Your task to perform on an android device: change notifications settings Image 0: 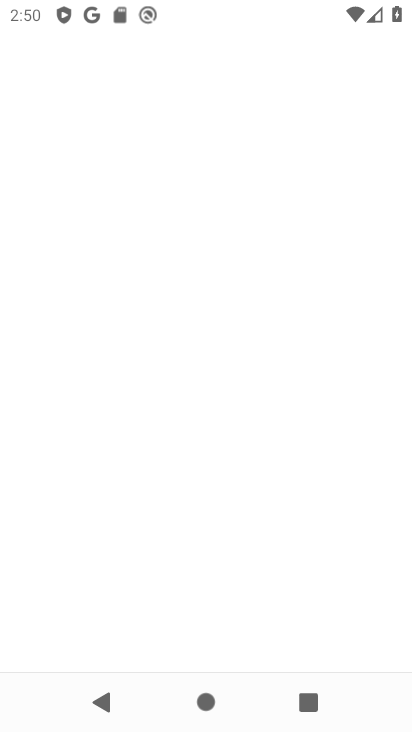
Step 0: drag from (293, 99) to (411, 173)
Your task to perform on an android device: change notifications settings Image 1: 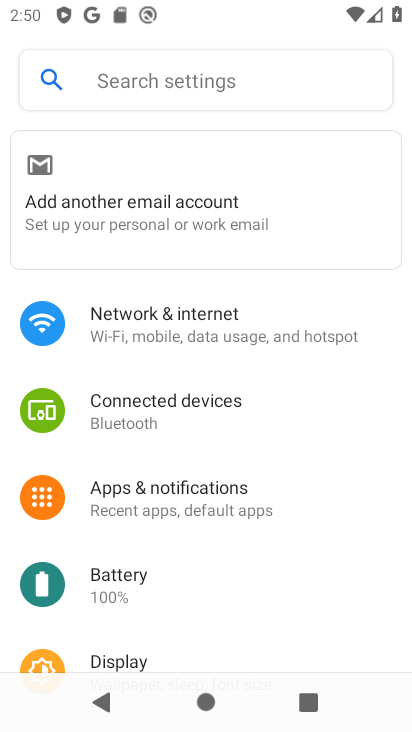
Step 1: press home button
Your task to perform on an android device: change notifications settings Image 2: 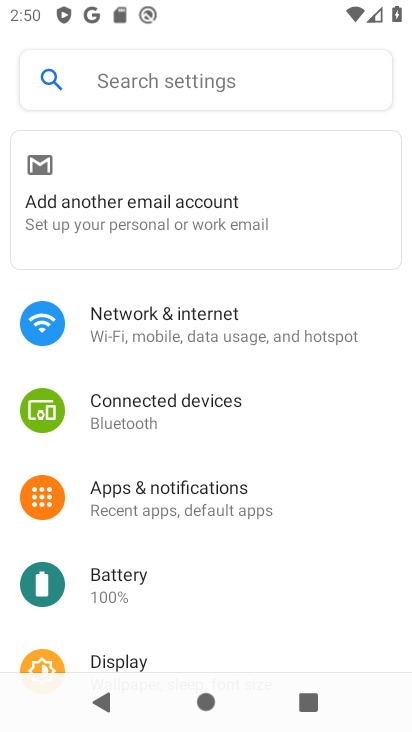
Step 2: drag from (411, 173) to (339, 452)
Your task to perform on an android device: change notifications settings Image 3: 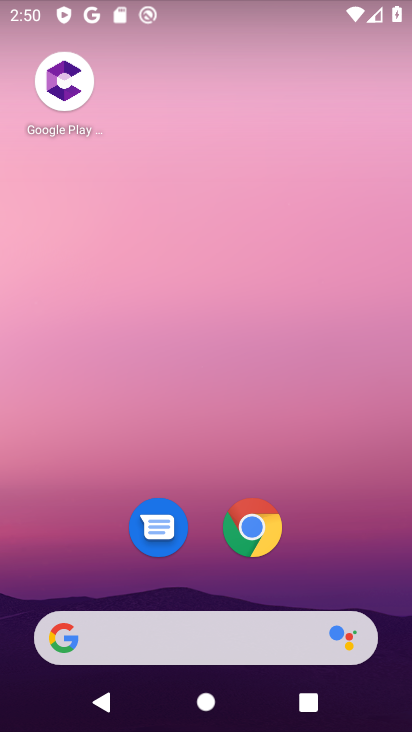
Step 3: drag from (73, 622) to (213, 109)
Your task to perform on an android device: change notifications settings Image 4: 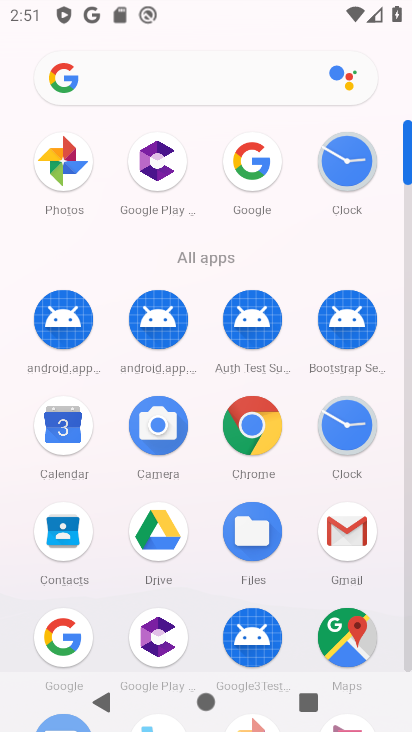
Step 4: drag from (243, 598) to (289, 294)
Your task to perform on an android device: change notifications settings Image 5: 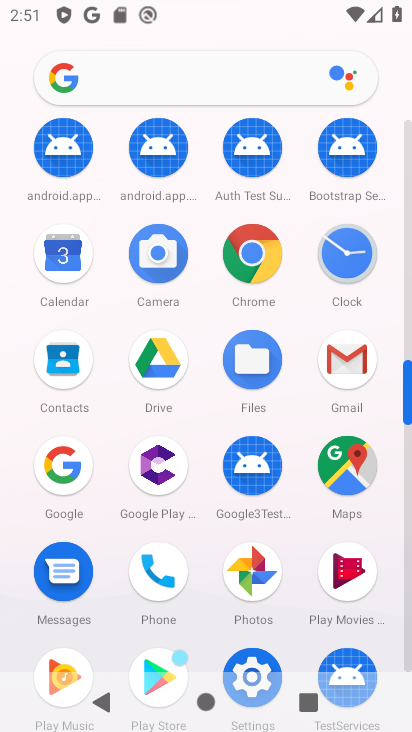
Step 5: click (247, 664)
Your task to perform on an android device: change notifications settings Image 6: 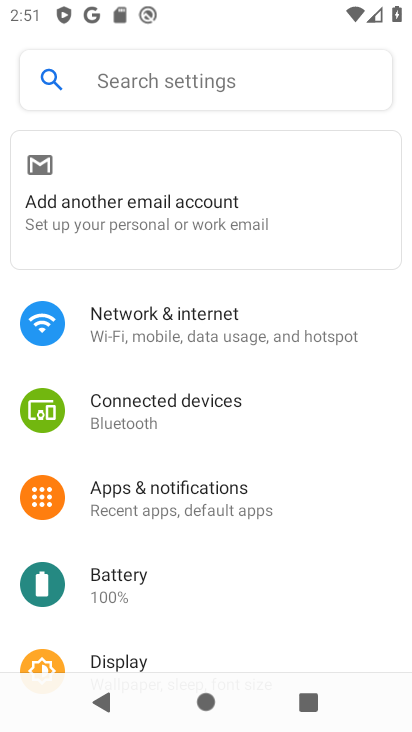
Step 6: click (282, 514)
Your task to perform on an android device: change notifications settings Image 7: 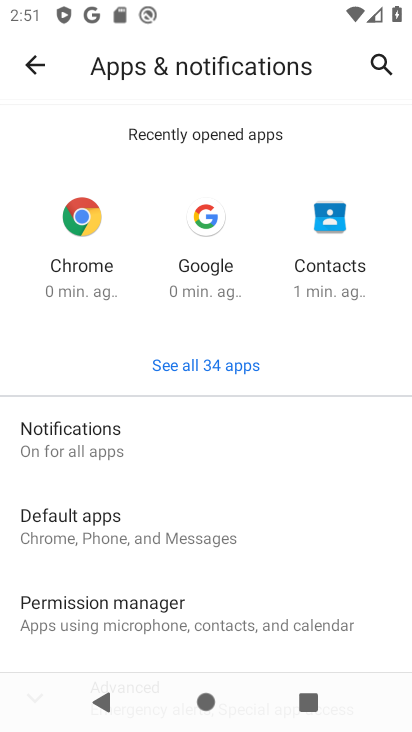
Step 7: click (202, 460)
Your task to perform on an android device: change notifications settings Image 8: 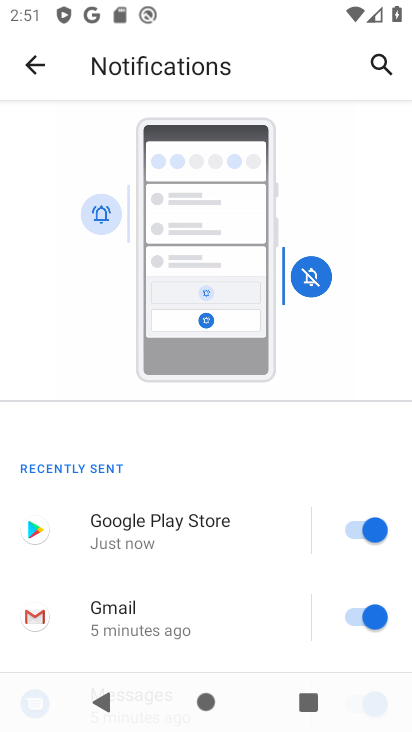
Step 8: drag from (202, 579) to (254, 236)
Your task to perform on an android device: change notifications settings Image 9: 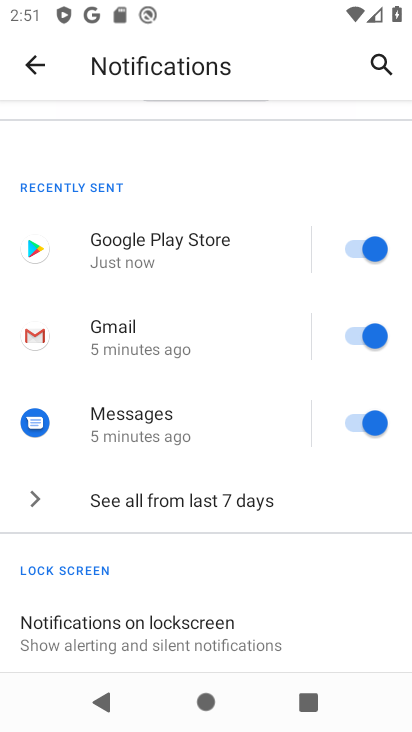
Step 9: click (359, 497)
Your task to perform on an android device: change notifications settings Image 10: 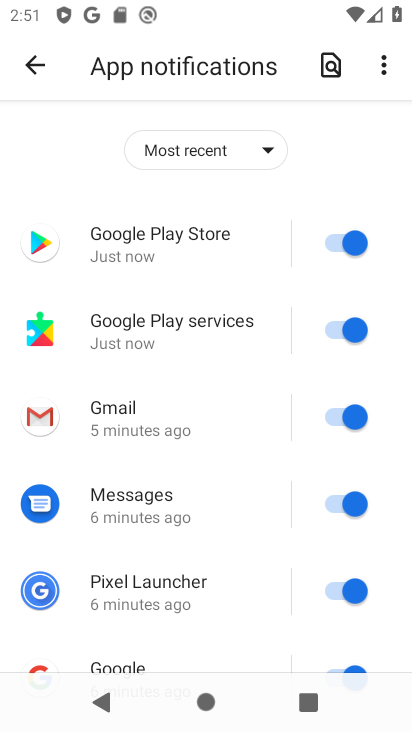
Step 10: click (352, 246)
Your task to perform on an android device: change notifications settings Image 11: 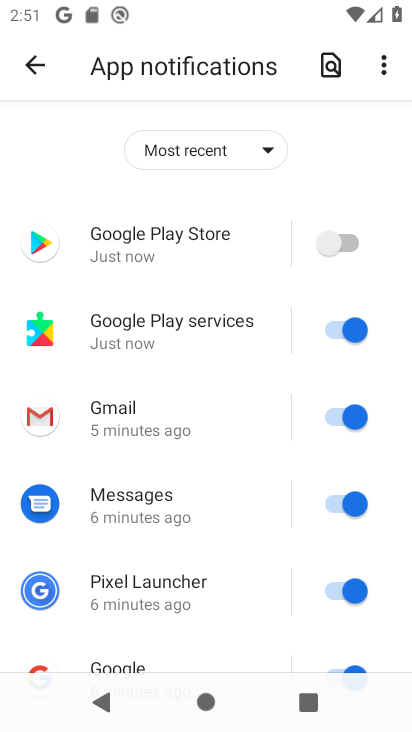
Step 11: click (342, 516)
Your task to perform on an android device: change notifications settings Image 12: 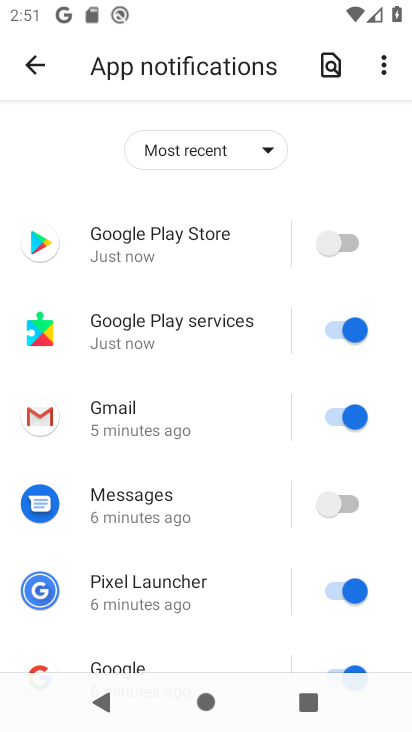
Step 12: click (344, 591)
Your task to perform on an android device: change notifications settings Image 13: 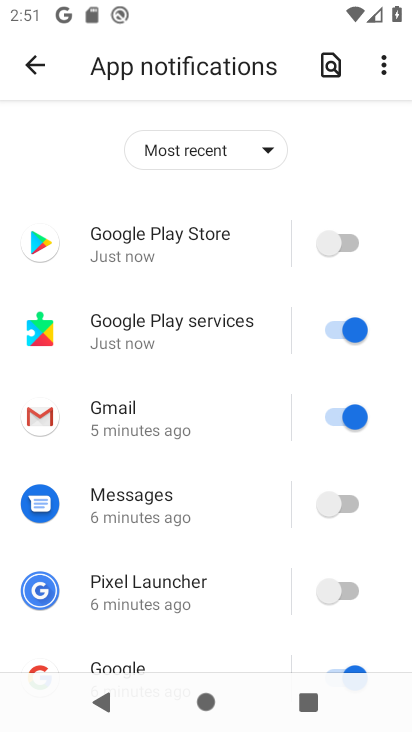
Step 13: click (333, 406)
Your task to perform on an android device: change notifications settings Image 14: 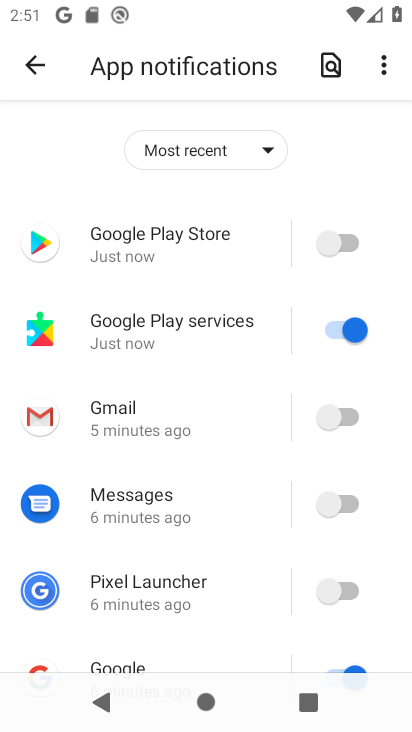
Step 14: click (352, 331)
Your task to perform on an android device: change notifications settings Image 15: 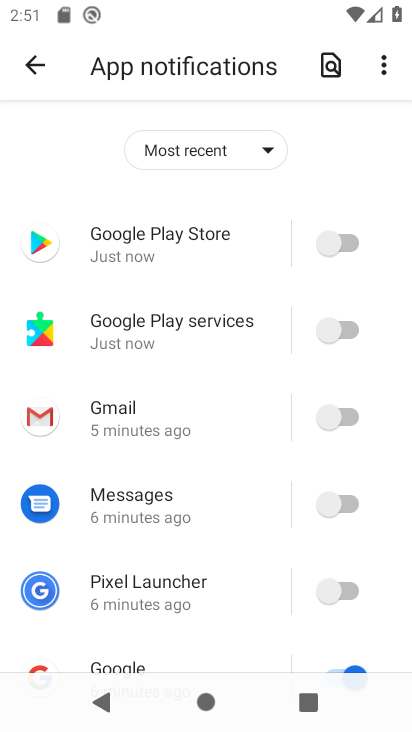
Step 15: drag from (247, 614) to (274, 386)
Your task to perform on an android device: change notifications settings Image 16: 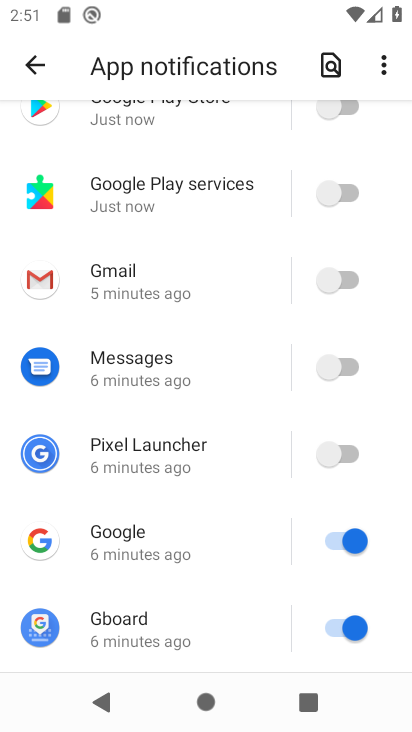
Step 16: click (34, 62)
Your task to perform on an android device: change notifications settings Image 17: 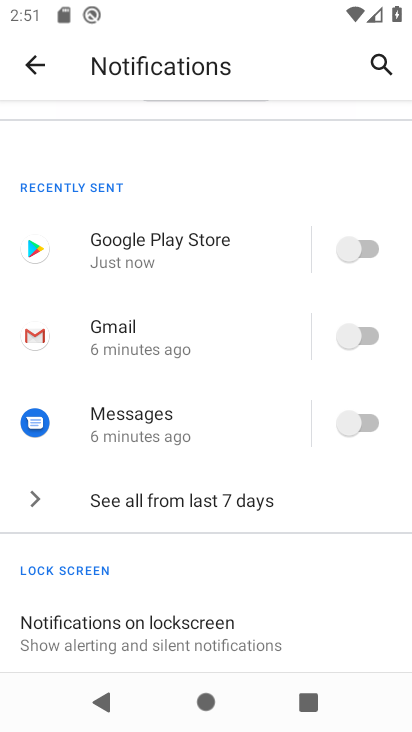
Step 17: drag from (228, 577) to (281, 423)
Your task to perform on an android device: change notifications settings Image 18: 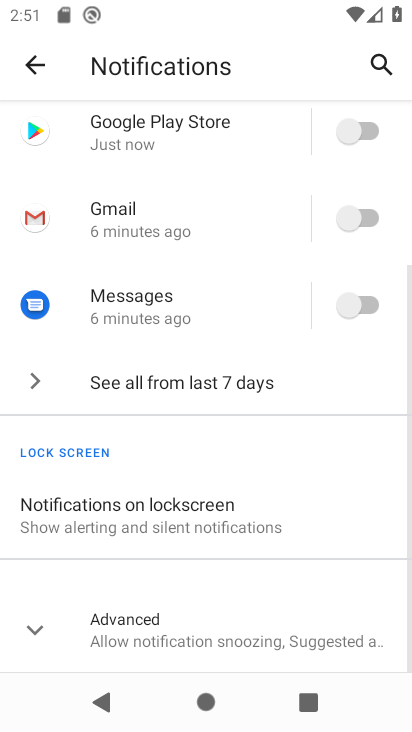
Step 18: click (259, 521)
Your task to perform on an android device: change notifications settings Image 19: 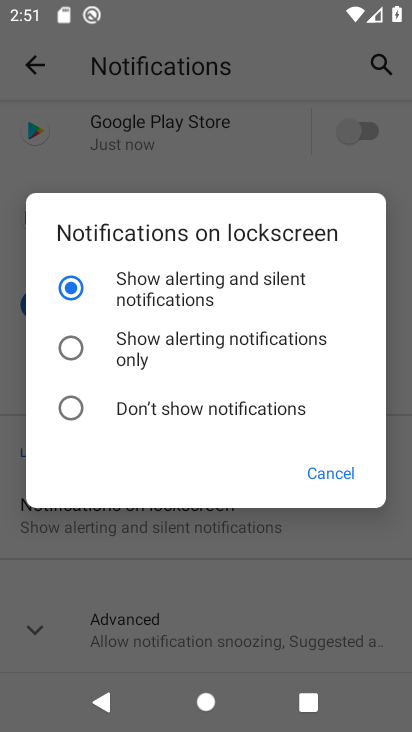
Step 19: click (187, 364)
Your task to perform on an android device: change notifications settings Image 20: 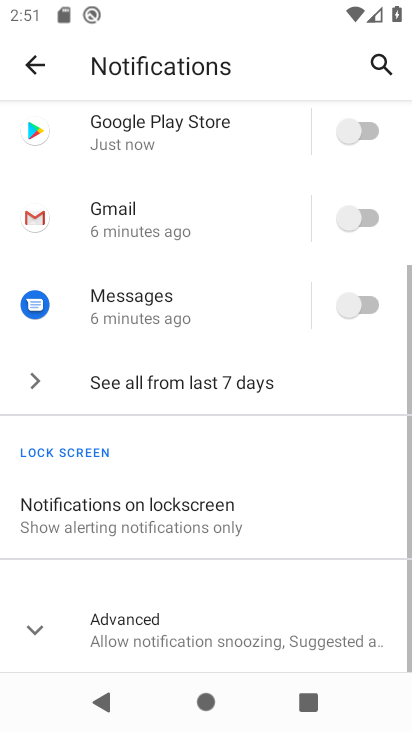
Step 20: click (319, 645)
Your task to perform on an android device: change notifications settings Image 21: 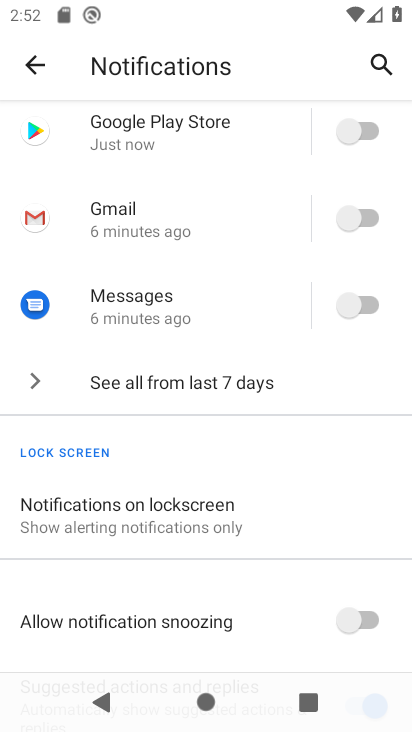
Step 21: click (376, 621)
Your task to perform on an android device: change notifications settings Image 22: 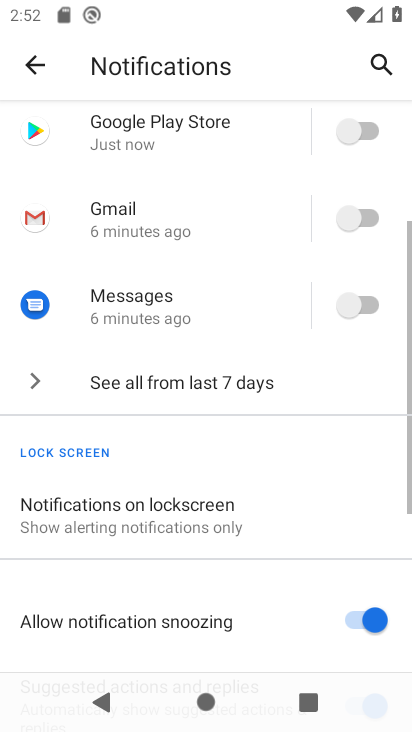
Step 22: drag from (191, 630) to (261, 272)
Your task to perform on an android device: change notifications settings Image 23: 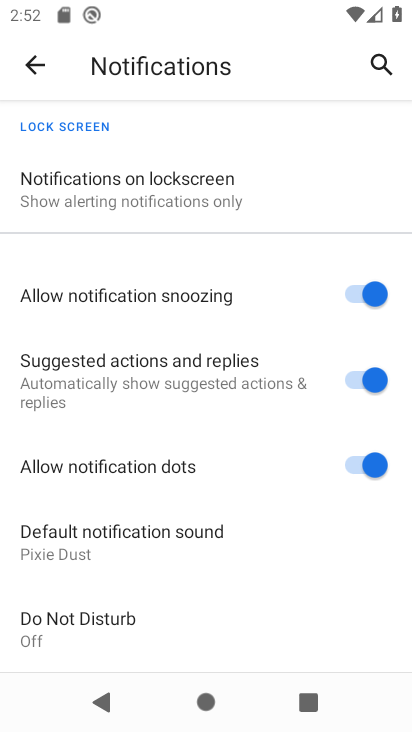
Step 23: click (351, 379)
Your task to perform on an android device: change notifications settings Image 24: 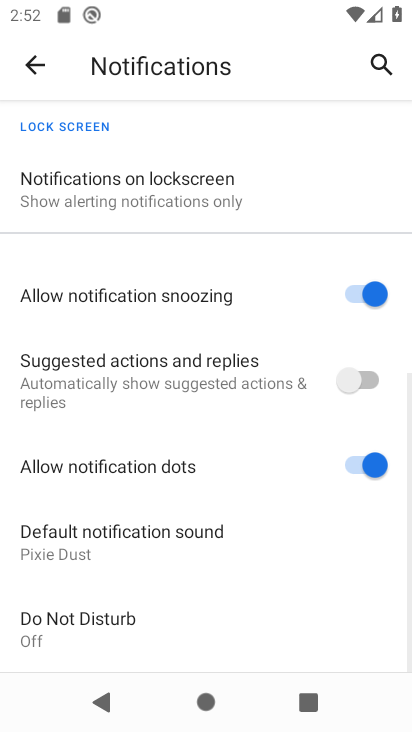
Step 24: click (292, 529)
Your task to perform on an android device: change notifications settings Image 25: 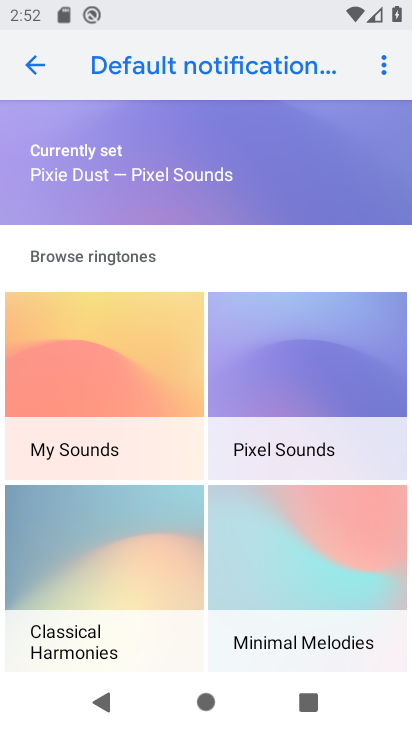
Step 25: click (303, 574)
Your task to perform on an android device: change notifications settings Image 26: 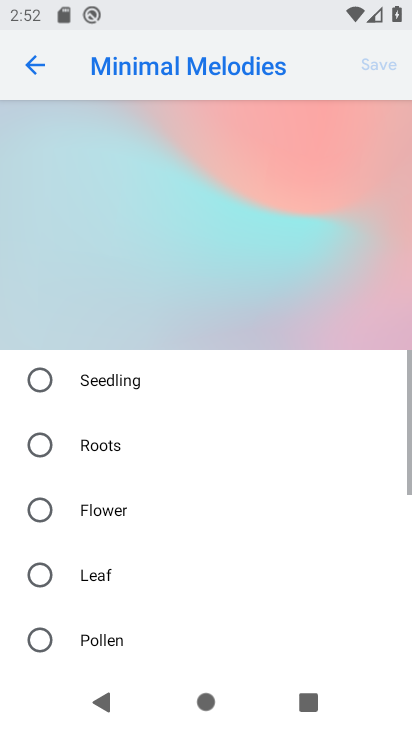
Step 26: click (278, 574)
Your task to perform on an android device: change notifications settings Image 27: 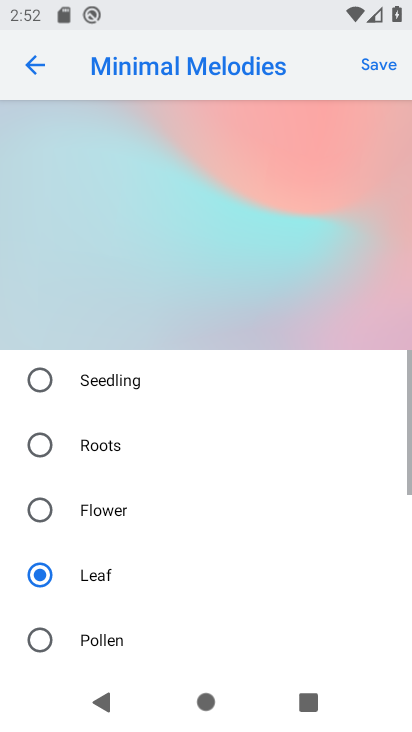
Step 27: click (380, 76)
Your task to perform on an android device: change notifications settings Image 28: 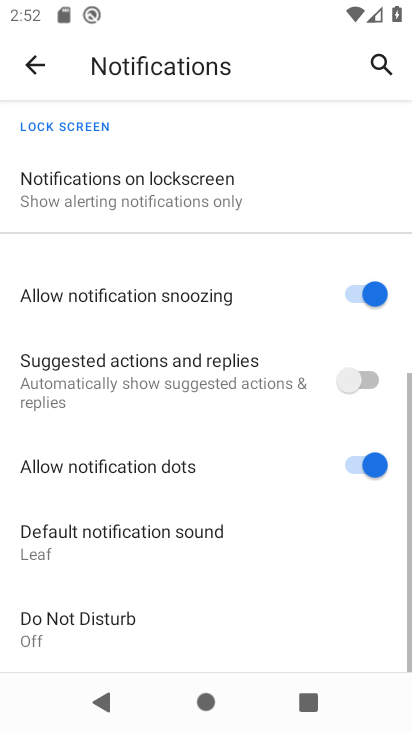
Step 28: task complete